Your task to perform on an android device: turn notification dots off Image 0: 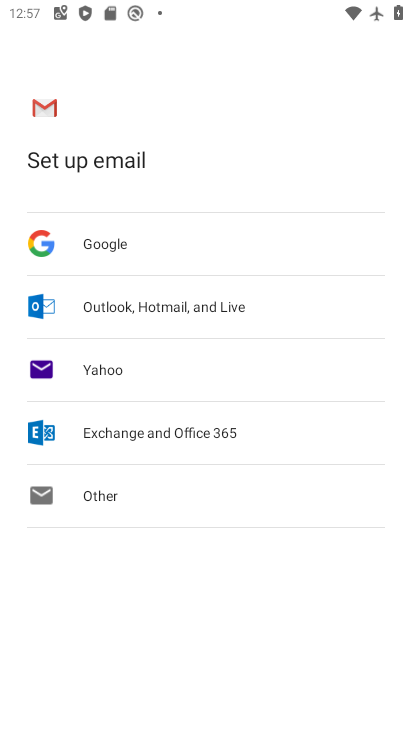
Step 0: press home button
Your task to perform on an android device: turn notification dots off Image 1: 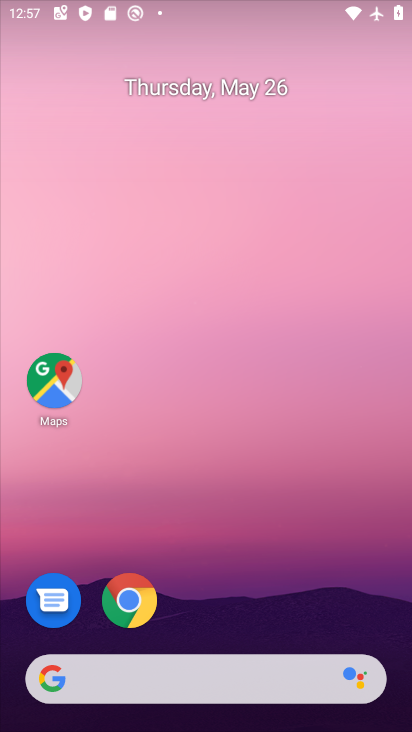
Step 1: drag from (288, 580) to (214, 163)
Your task to perform on an android device: turn notification dots off Image 2: 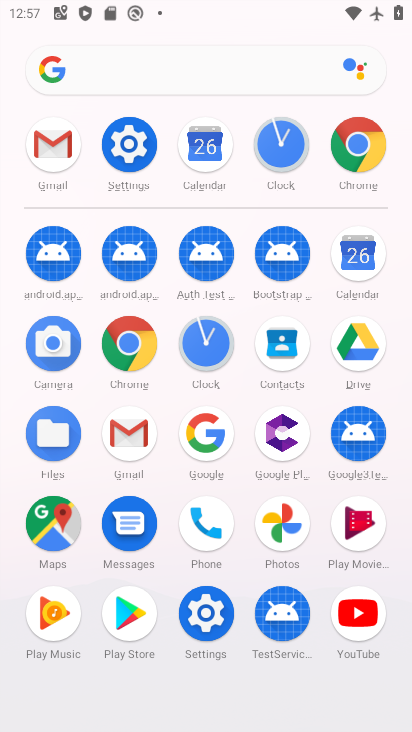
Step 2: click (144, 146)
Your task to perform on an android device: turn notification dots off Image 3: 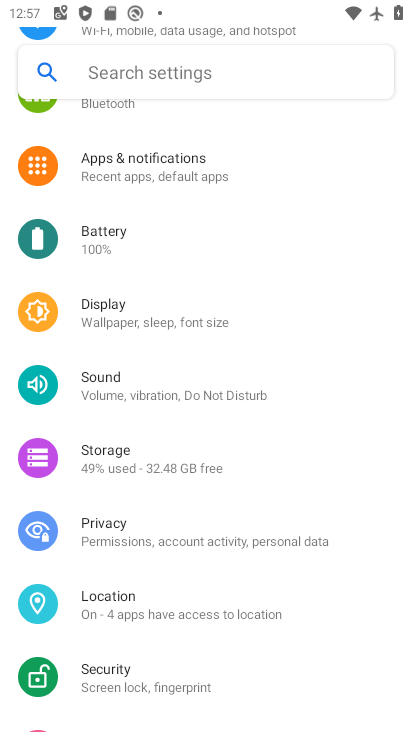
Step 3: drag from (220, 197) to (278, 598)
Your task to perform on an android device: turn notification dots off Image 4: 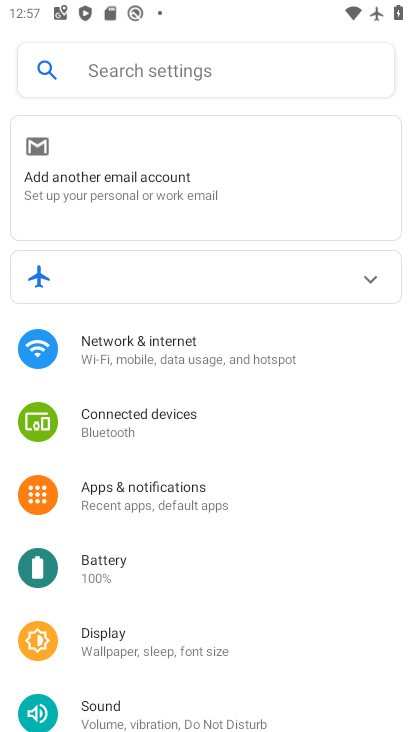
Step 4: click (182, 507)
Your task to perform on an android device: turn notification dots off Image 5: 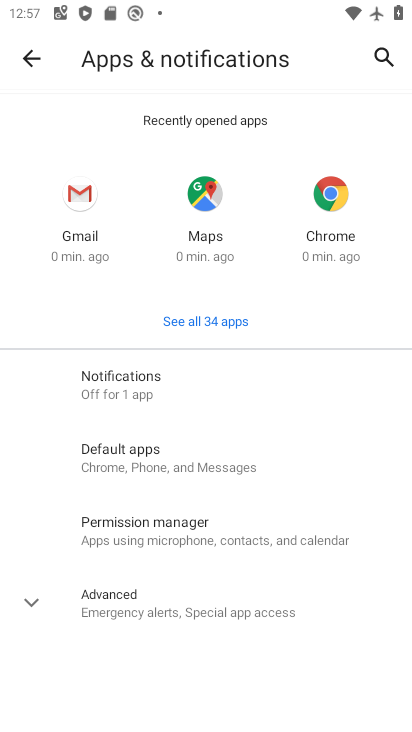
Step 5: click (160, 389)
Your task to perform on an android device: turn notification dots off Image 6: 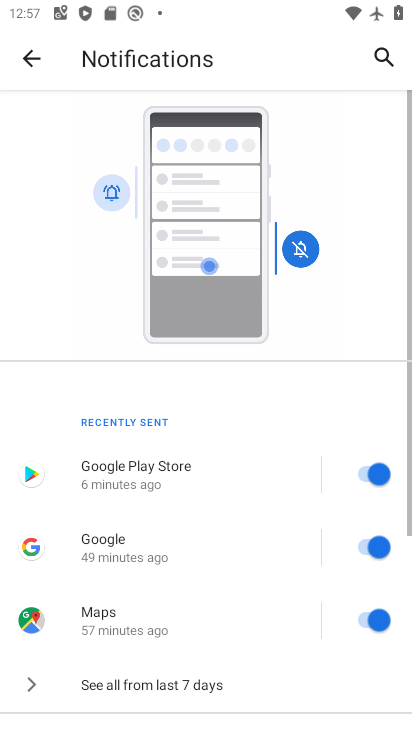
Step 6: drag from (215, 513) to (274, 70)
Your task to perform on an android device: turn notification dots off Image 7: 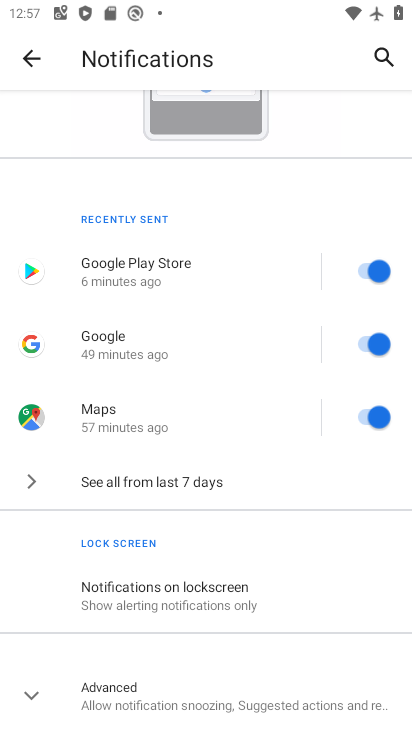
Step 7: click (190, 684)
Your task to perform on an android device: turn notification dots off Image 8: 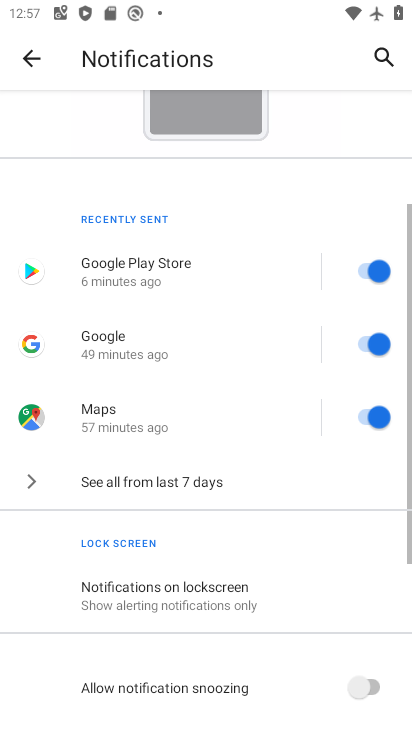
Step 8: task complete